Your task to perform on an android device: Play the last video I watched on Youtube Image 0: 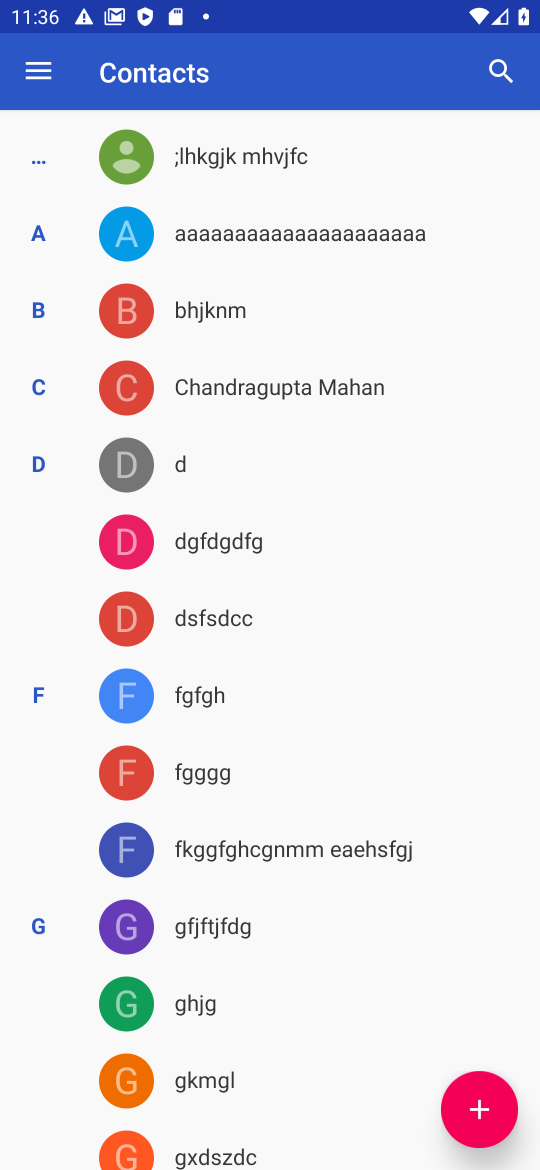
Step 0: press home button
Your task to perform on an android device: Play the last video I watched on Youtube Image 1: 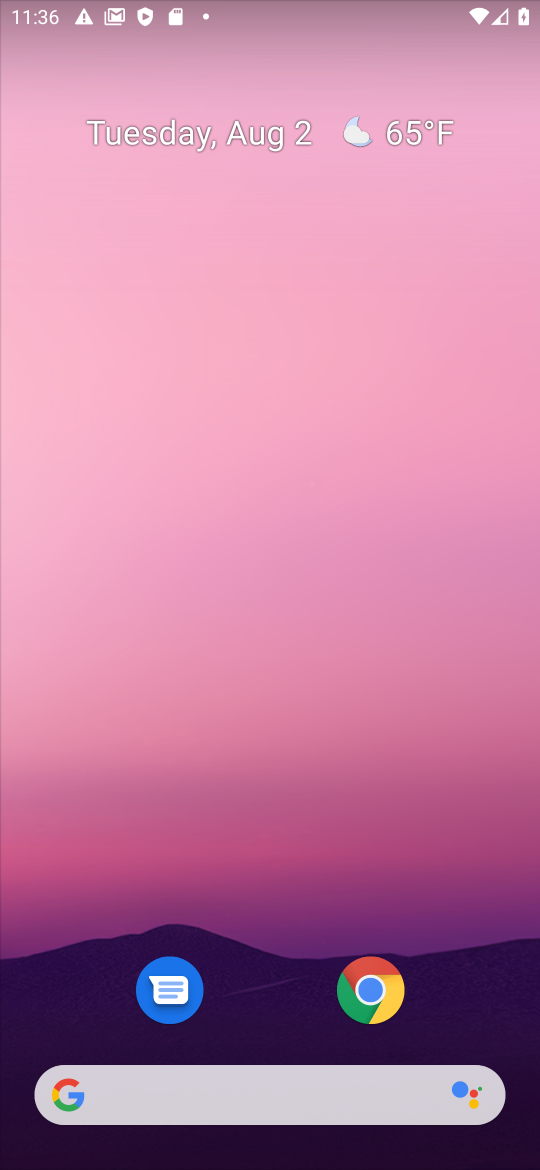
Step 1: drag from (246, 945) to (283, 142)
Your task to perform on an android device: Play the last video I watched on Youtube Image 2: 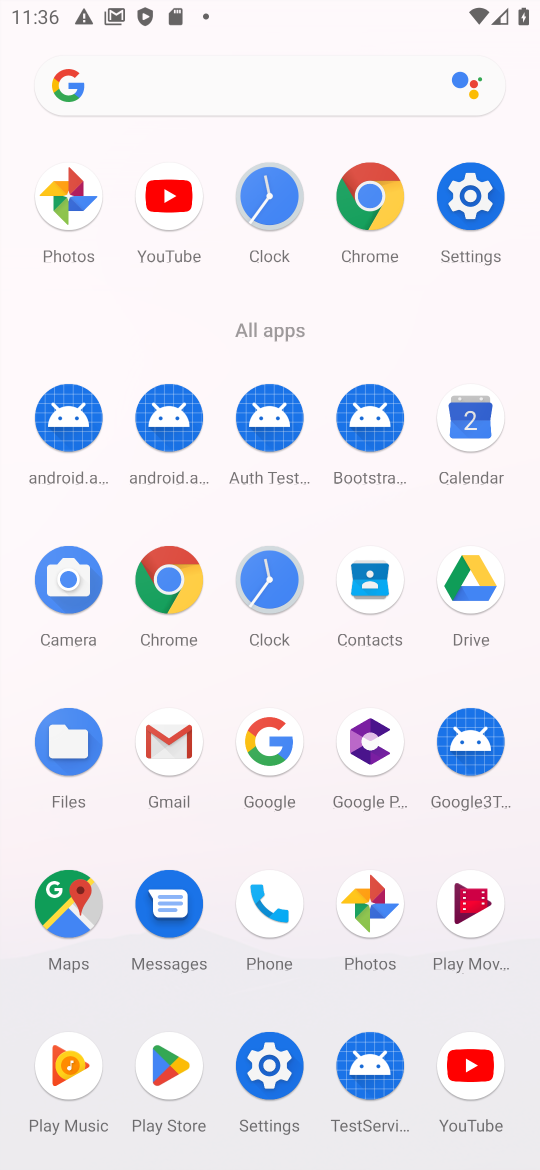
Step 2: click (475, 1074)
Your task to perform on an android device: Play the last video I watched on Youtube Image 3: 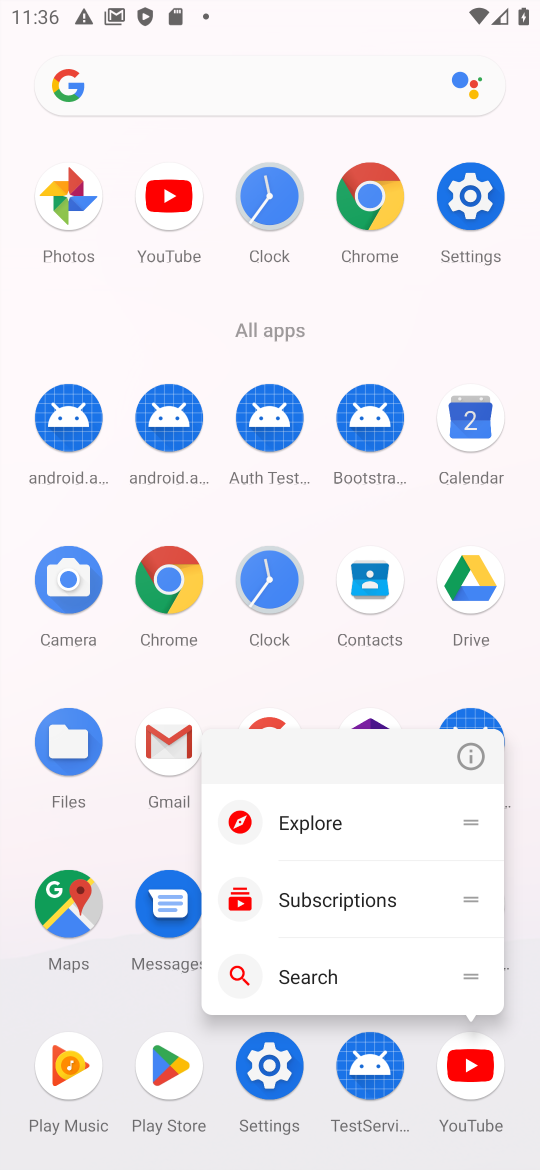
Step 3: click (483, 1085)
Your task to perform on an android device: Play the last video I watched on Youtube Image 4: 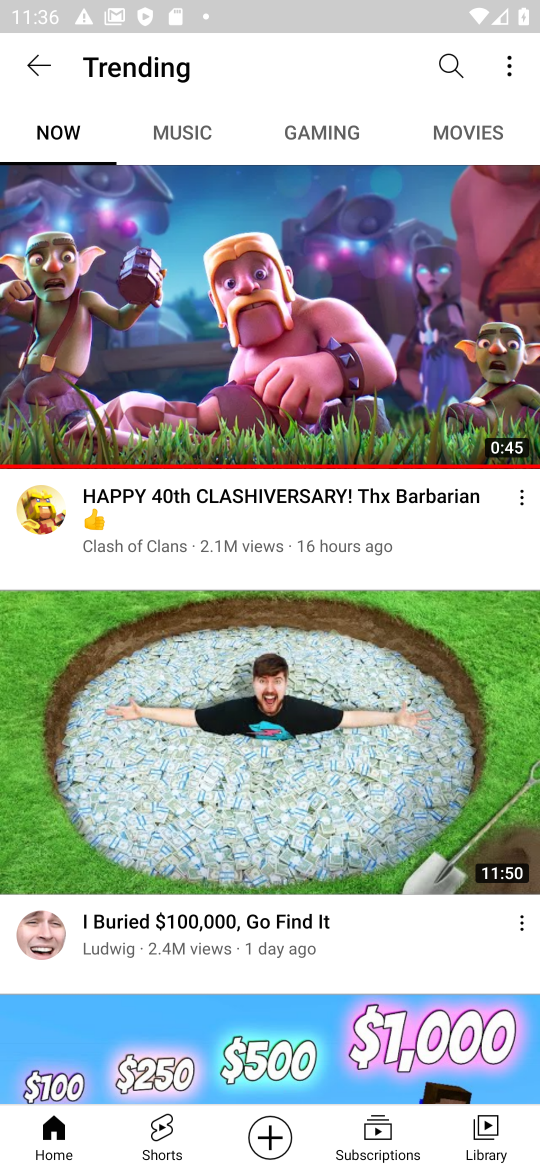
Step 4: click (501, 1138)
Your task to perform on an android device: Play the last video I watched on Youtube Image 5: 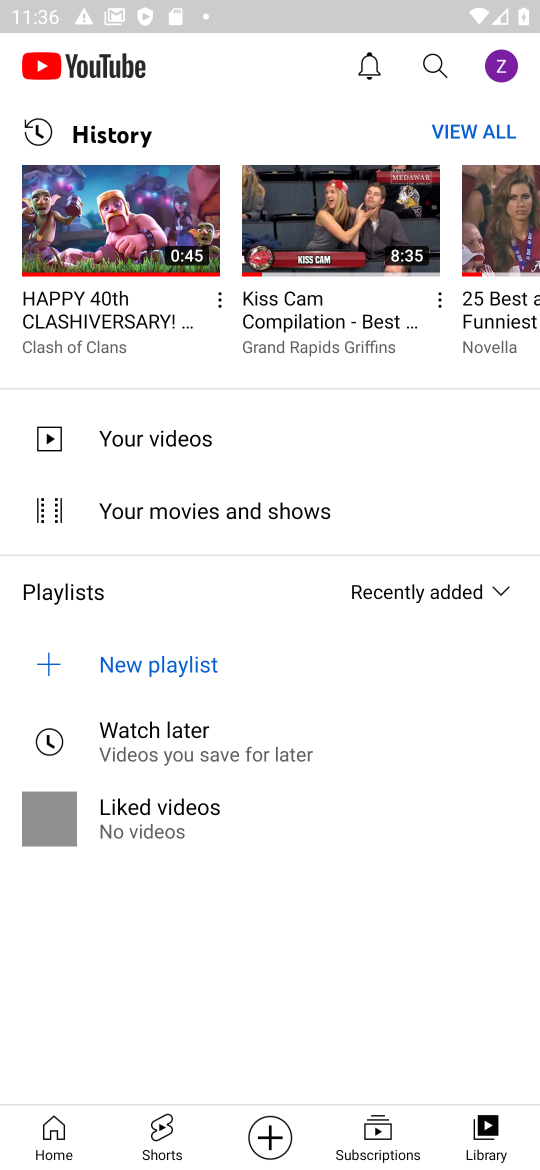
Step 5: click (151, 240)
Your task to perform on an android device: Play the last video I watched on Youtube Image 6: 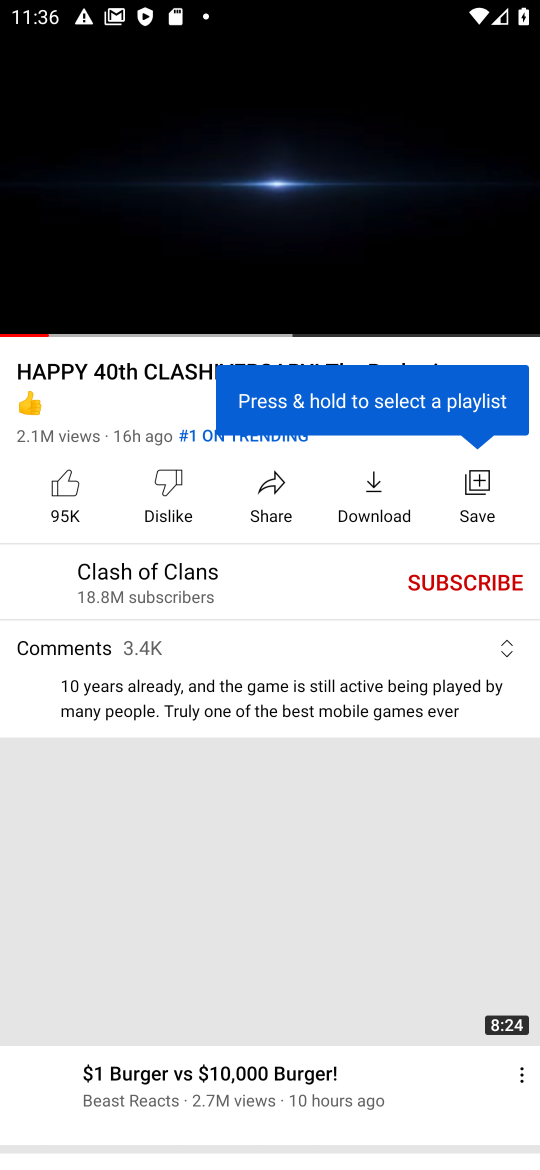
Step 6: task complete